Your task to perform on an android device: View the shopping cart on walmart. Search for "beats solo 3" on walmart, select the first entry, add it to the cart, then select checkout. Image 0: 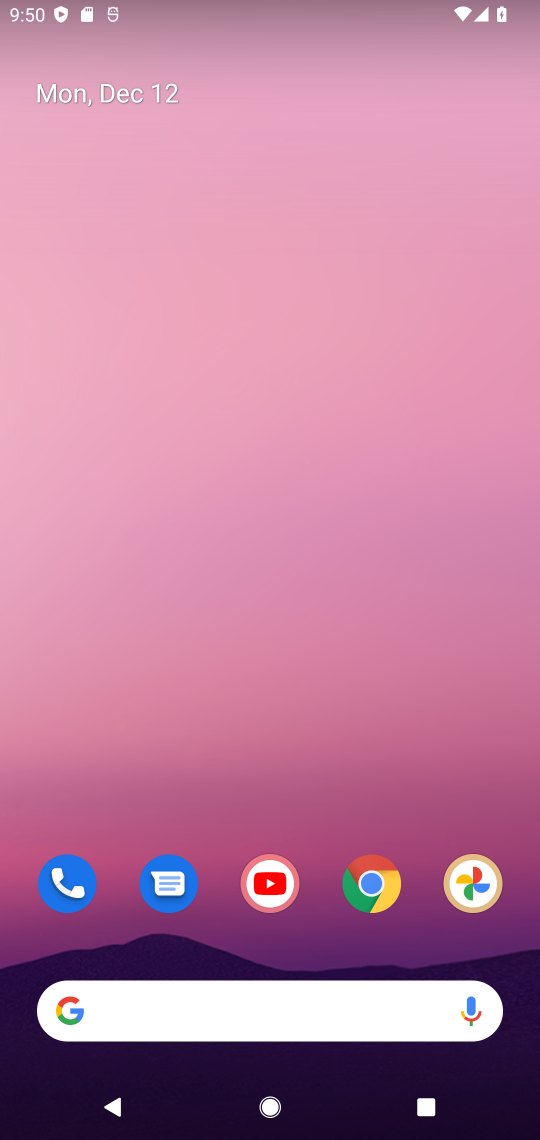
Step 0: drag from (254, 906) to (227, 434)
Your task to perform on an android device: View the shopping cart on walmart. Search for "beats solo 3" on walmart, select the first entry, add it to the cart, then select checkout. Image 1: 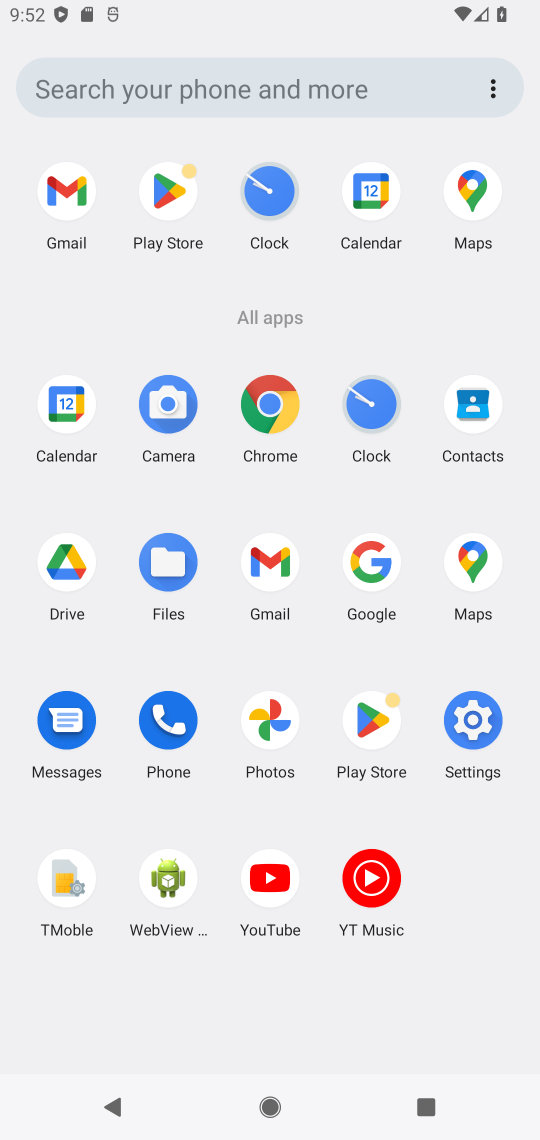
Step 1: click (369, 566)
Your task to perform on an android device: View the shopping cart on walmart. Search for "beats solo 3" on walmart, select the first entry, add it to the cart, then select checkout. Image 2: 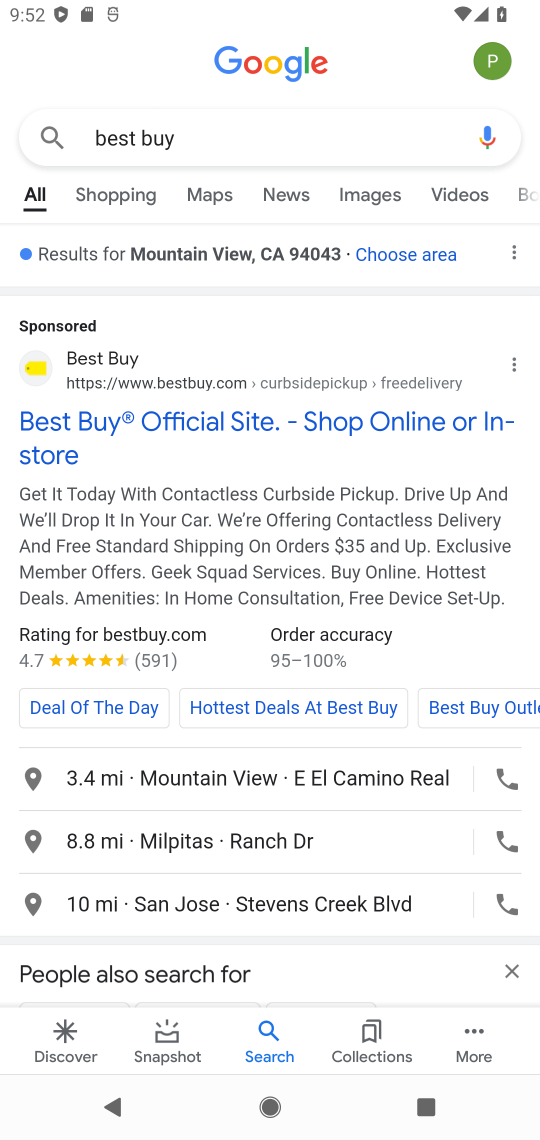
Step 2: click (352, 144)
Your task to perform on an android device: View the shopping cart on walmart. Search for "beats solo 3" on walmart, select the first entry, add it to the cart, then select checkout. Image 3: 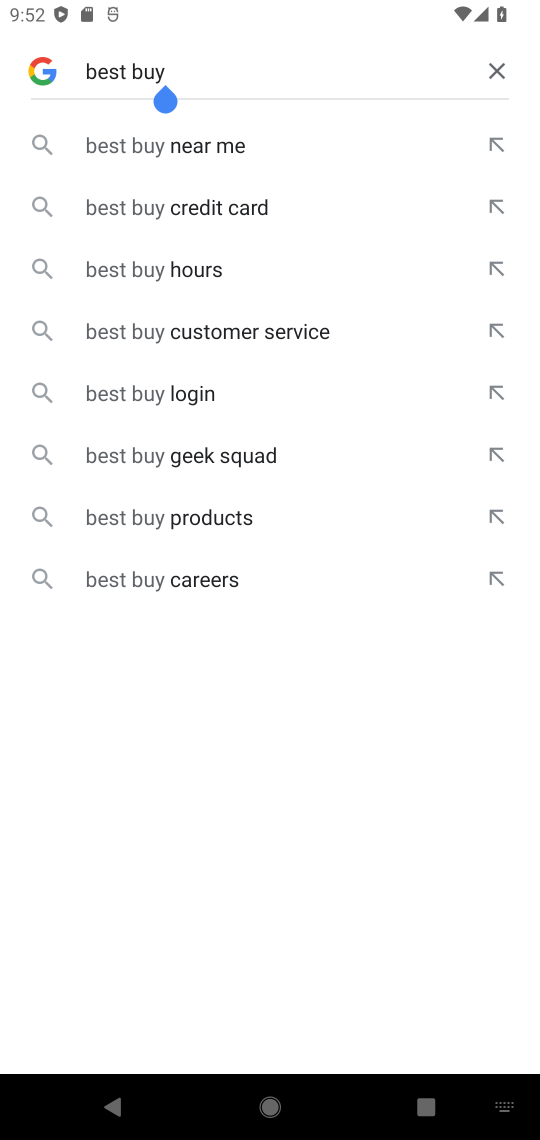
Step 3: click (488, 73)
Your task to perform on an android device: View the shopping cart on walmart. Search for "beats solo 3" on walmart, select the first entry, add it to the cart, then select checkout. Image 4: 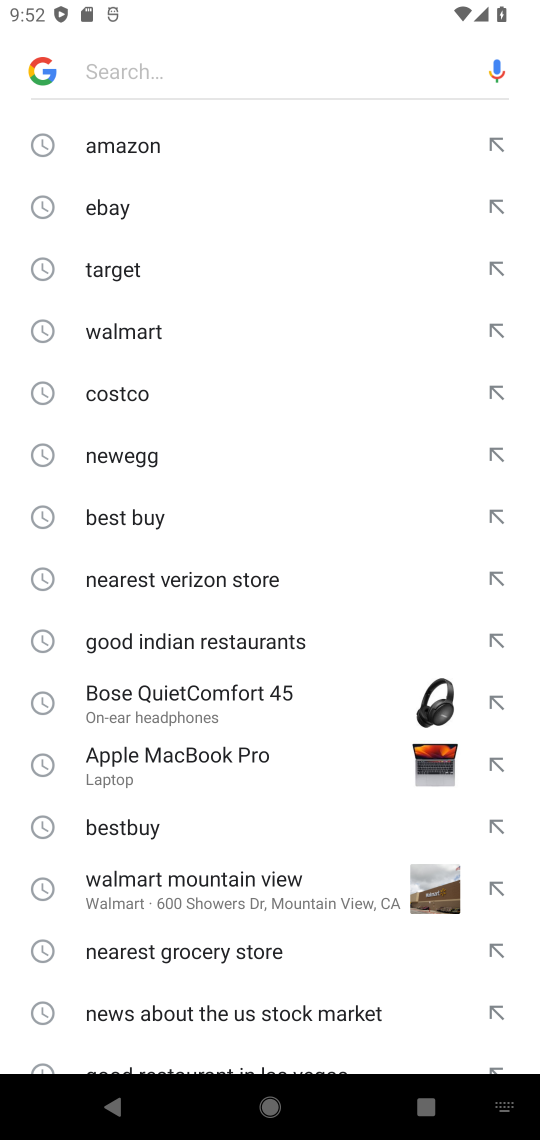
Step 4: click (125, 330)
Your task to perform on an android device: View the shopping cart on walmart. Search for "beats solo 3" on walmart, select the first entry, add it to the cart, then select checkout. Image 5: 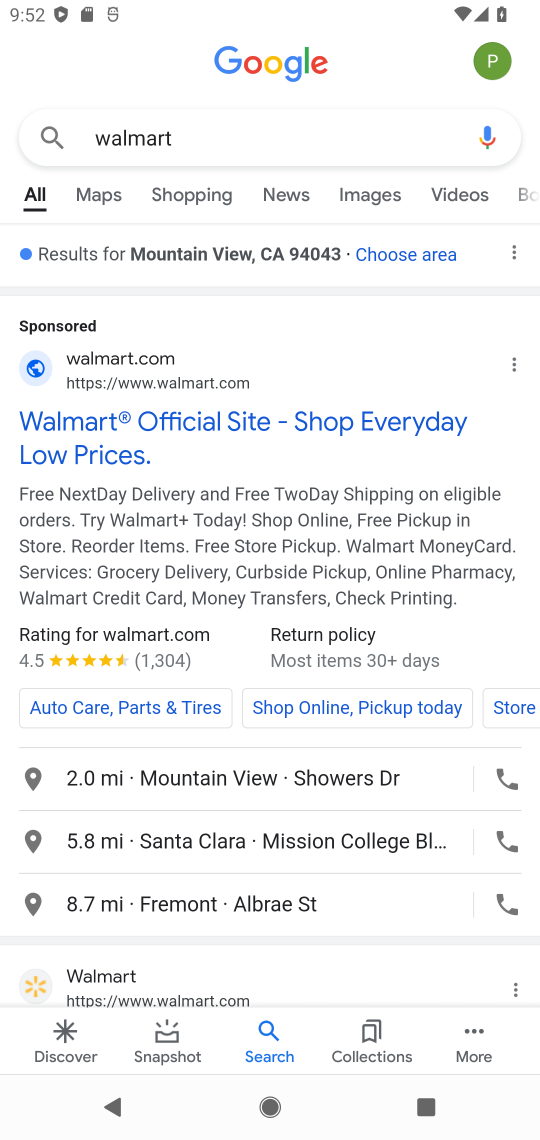
Step 5: drag from (197, 763) to (315, 396)
Your task to perform on an android device: View the shopping cart on walmart. Search for "beats solo 3" on walmart, select the first entry, add it to the cart, then select checkout. Image 6: 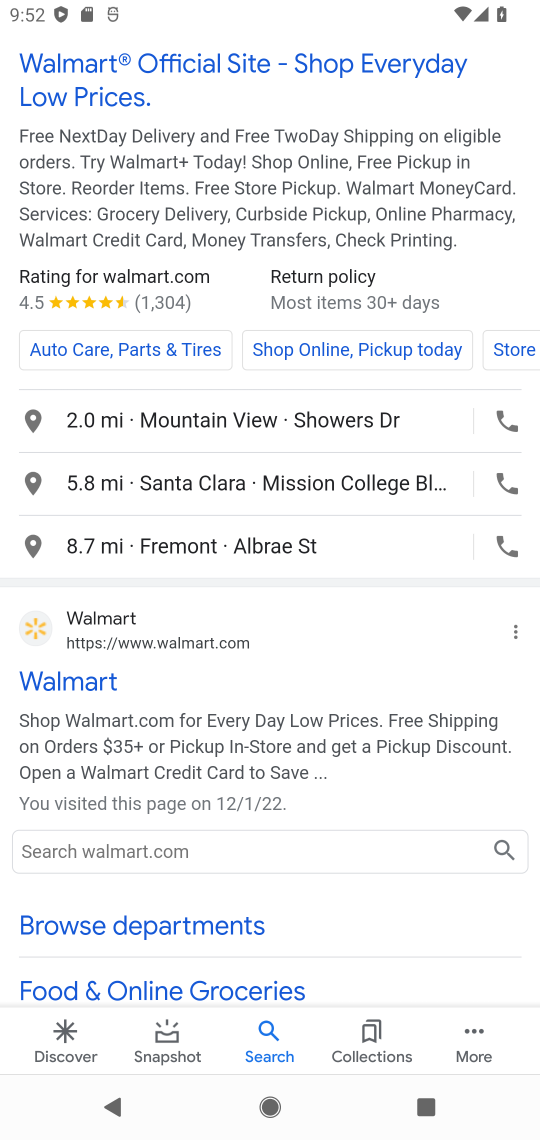
Step 6: click (88, 681)
Your task to perform on an android device: View the shopping cart on walmart. Search for "beats solo 3" on walmart, select the first entry, add it to the cart, then select checkout. Image 7: 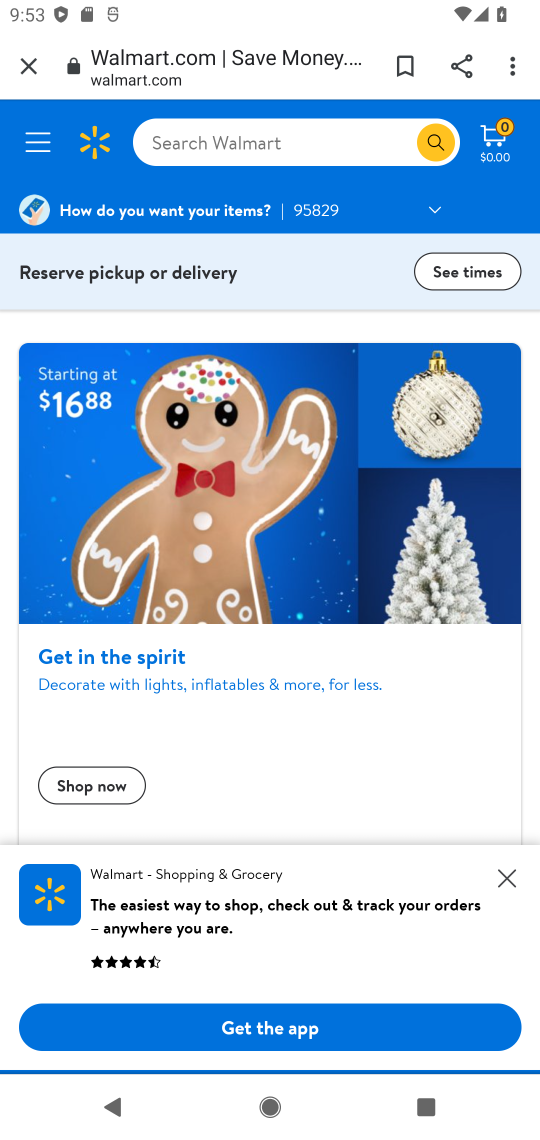
Step 7: click (336, 143)
Your task to perform on an android device: View the shopping cart on walmart. Search for "beats solo 3" on walmart, select the first entry, add it to the cart, then select checkout. Image 8: 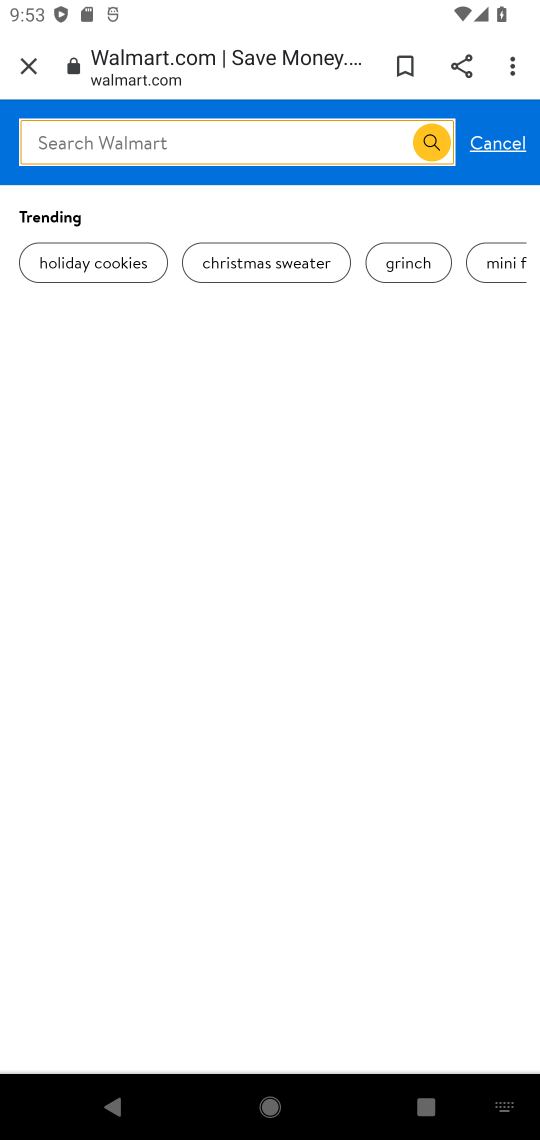
Step 8: type ""beats solo 3"
Your task to perform on an android device: View the shopping cart on walmart. Search for "beats solo 3" on walmart, select the first entry, add it to the cart, then select checkout. Image 9: 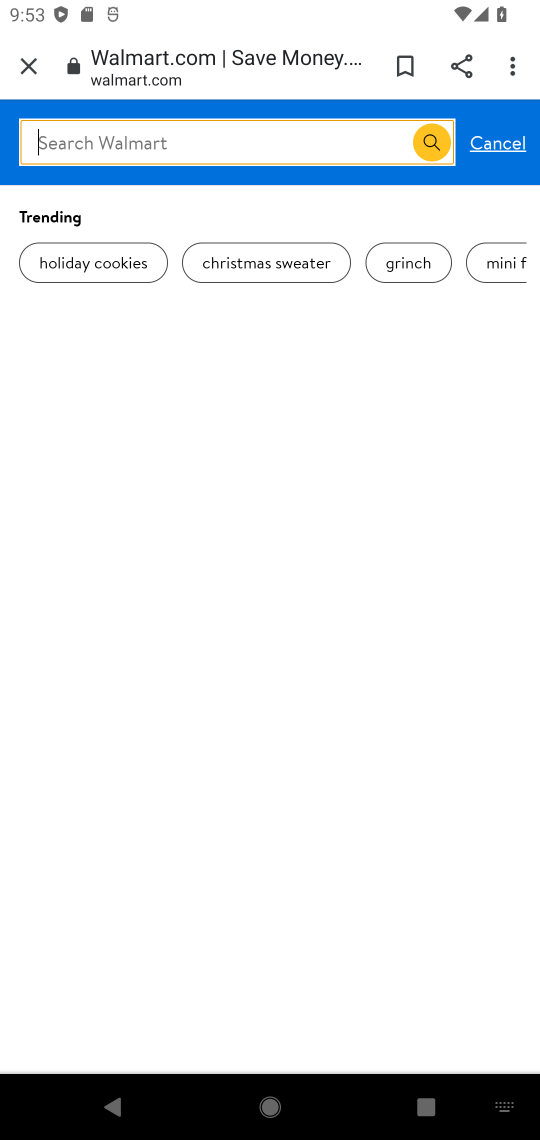
Step 9: click (361, 144)
Your task to perform on an android device: View the shopping cart on walmart. Search for "beats solo 3" on walmart, select the first entry, add it to the cart, then select checkout. Image 10: 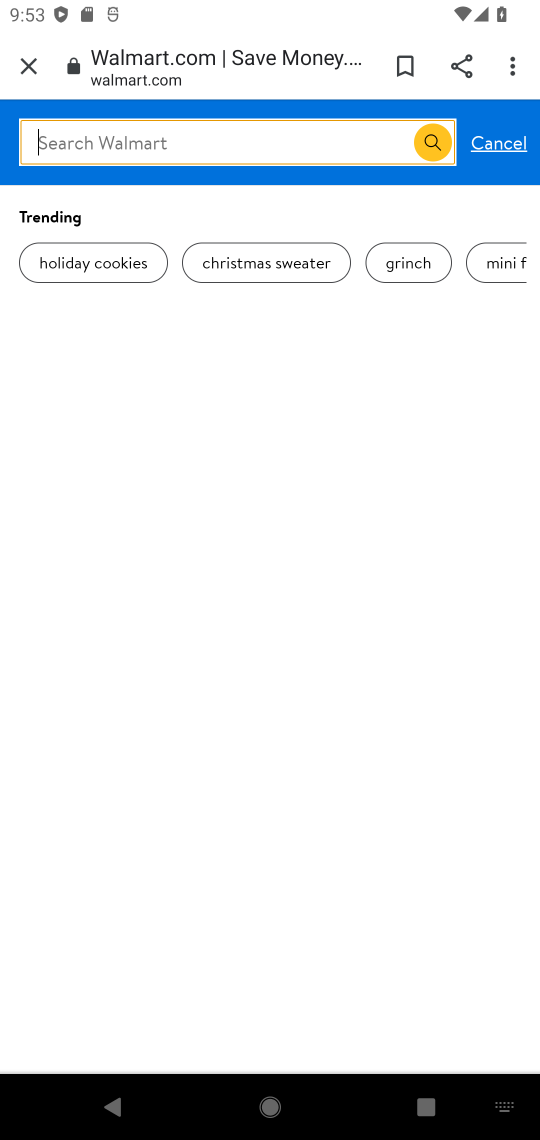
Step 10: type ""beats solo 3"
Your task to perform on an android device: View the shopping cart on walmart. Search for "beats solo 3" on walmart, select the first entry, add it to the cart, then select checkout. Image 11: 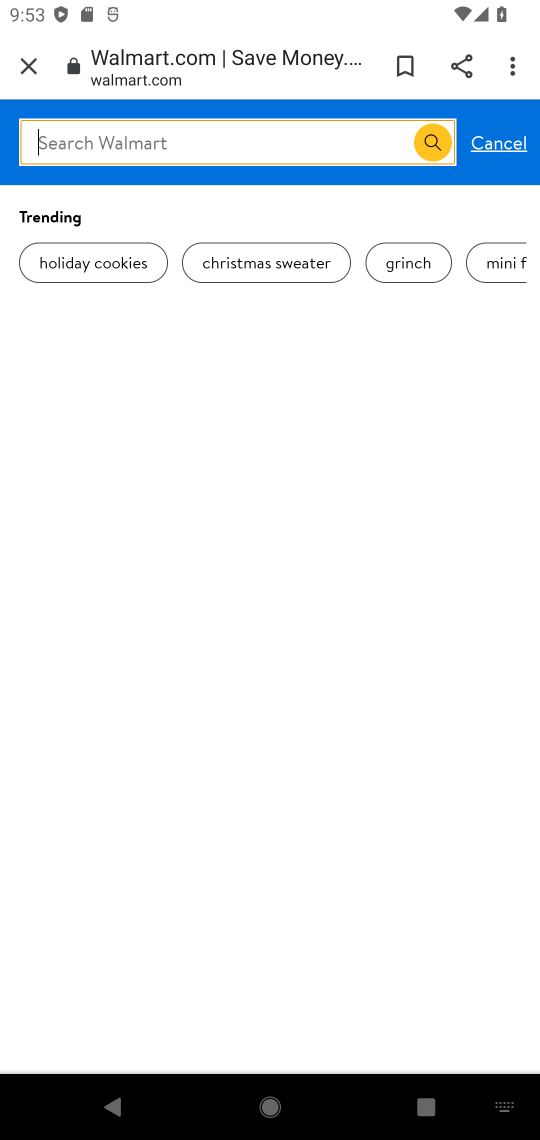
Step 11: click (325, 130)
Your task to perform on an android device: View the shopping cart on walmart. Search for "beats solo 3" on walmart, select the first entry, add it to the cart, then select checkout. Image 12: 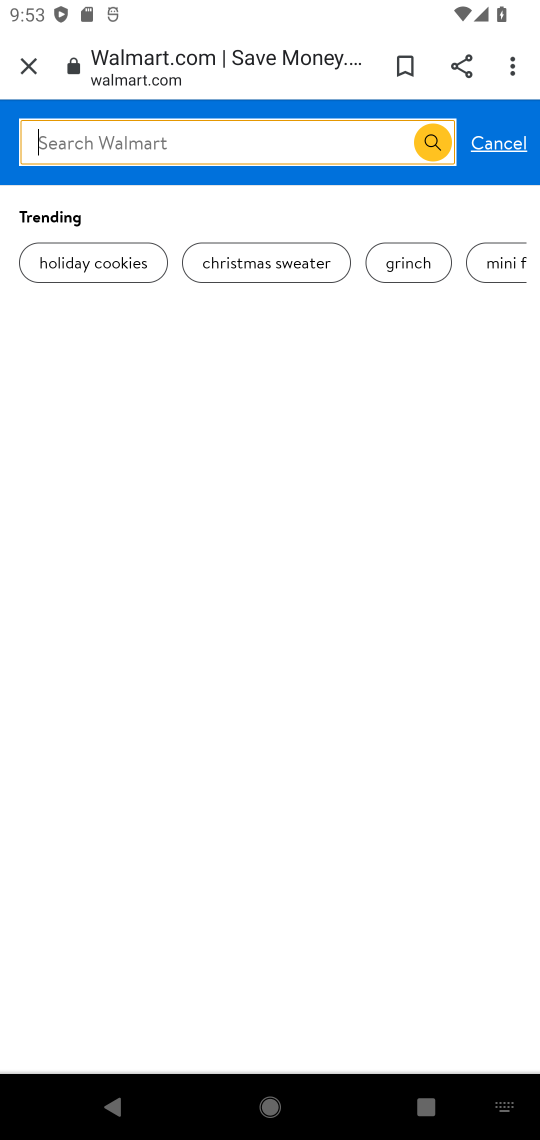
Step 12: click (147, 136)
Your task to perform on an android device: View the shopping cart on walmart. Search for "beats solo 3" on walmart, select the first entry, add it to the cart, then select checkout. Image 13: 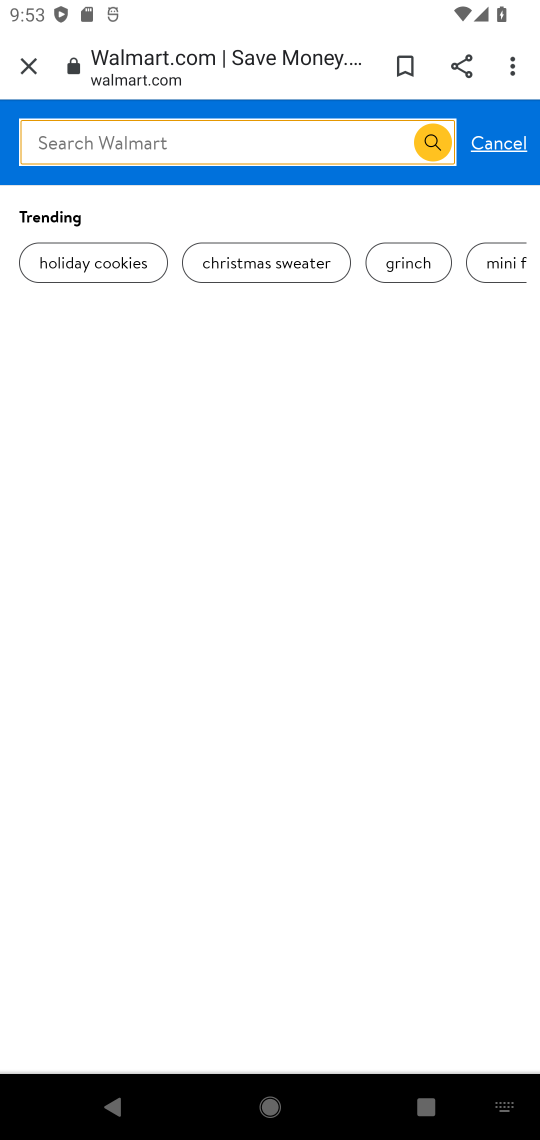
Step 13: type ""beats solo 3"
Your task to perform on an android device: View the shopping cart on walmart. Search for "beats solo 3" on walmart, select the first entry, add it to the cart, then select checkout. Image 14: 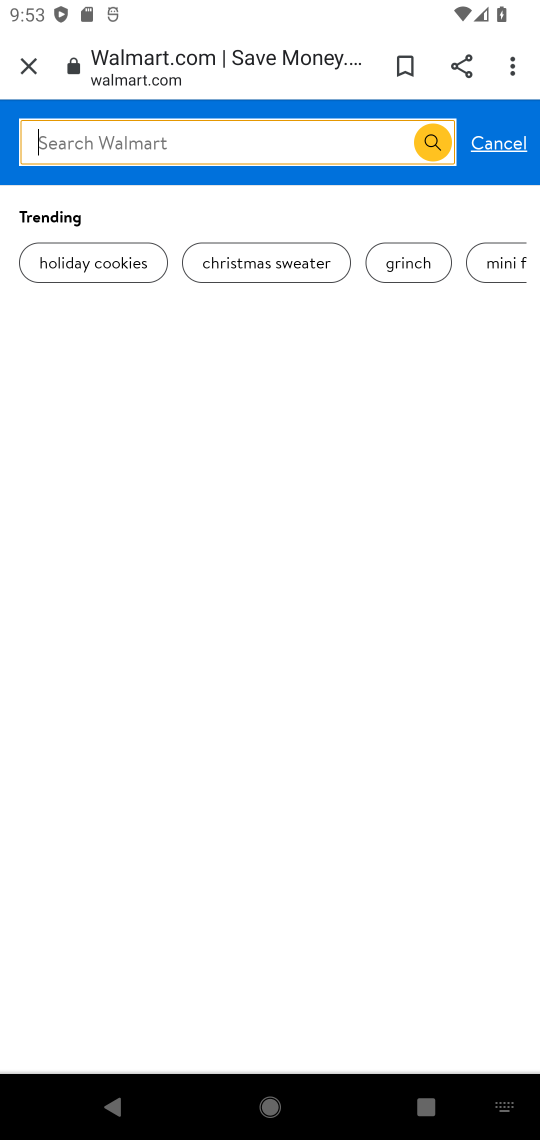
Step 14: type ""
Your task to perform on an android device: View the shopping cart on walmart. Search for "beats solo 3" on walmart, select the first entry, add it to the cart, then select checkout. Image 15: 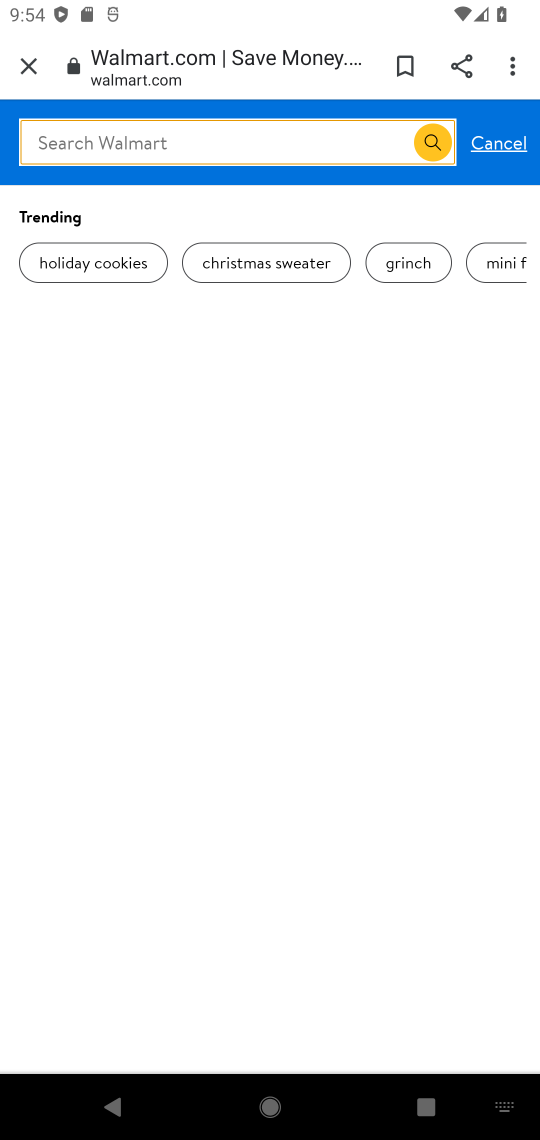
Step 15: task complete